Your task to perform on an android device: find which apps use the phone's location Image 0: 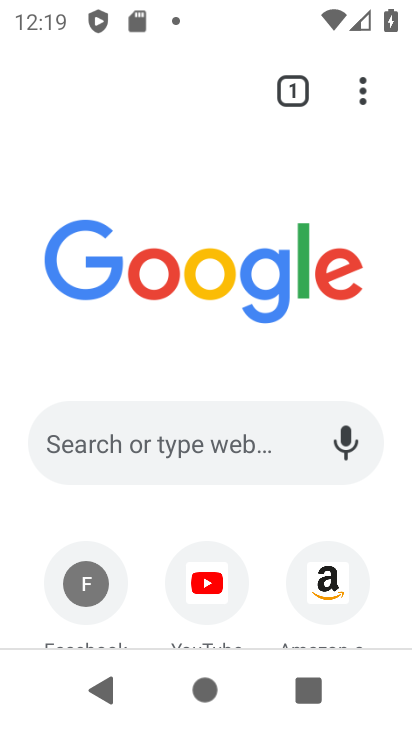
Step 0: press home button
Your task to perform on an android device: find which apps use the phone's location Image 1: 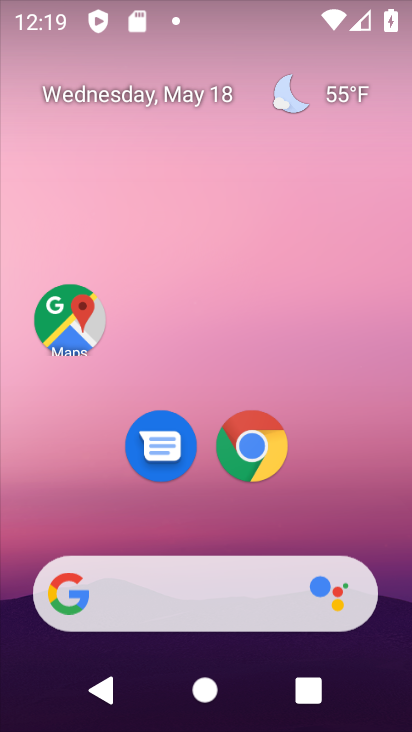
Step 1: drag from (206, 529) to (224, 80)
Your task to perform on an android device: find which apps use the phone's location Image 2: 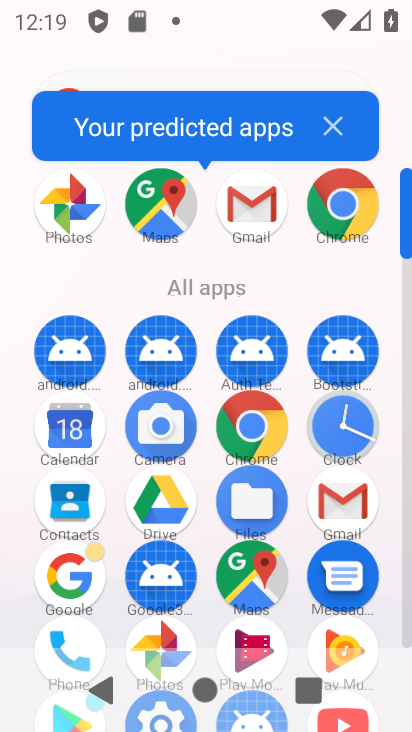
Step 2: drag from (244, 588) to (308, 197)
Your task to perform on an android device: find which apps use the phone's location Image 3: 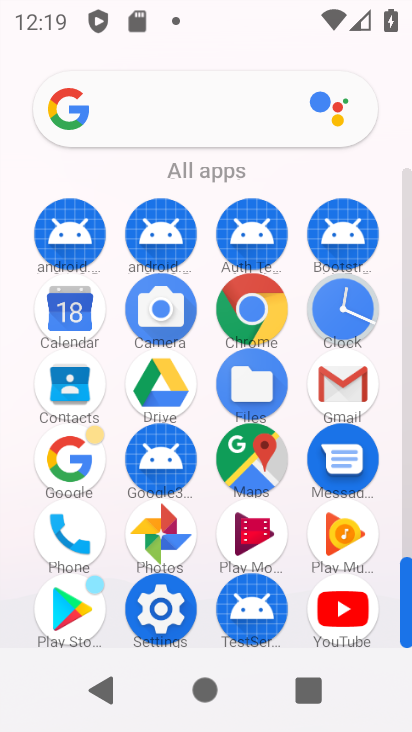
Step 3: click (158, 616)
Your task to perform on an android device: find which apps use the phone's location Image 4: 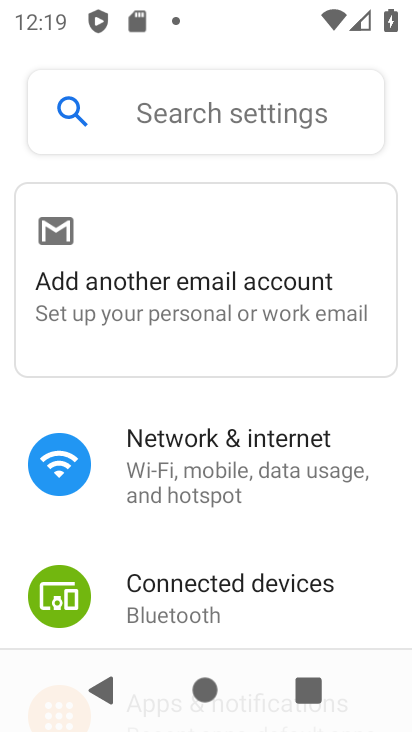
Step 4: drag from (243, 569) to (301, 148)
Your task to perform on an android device: find which apps use the phone's location Image 5: 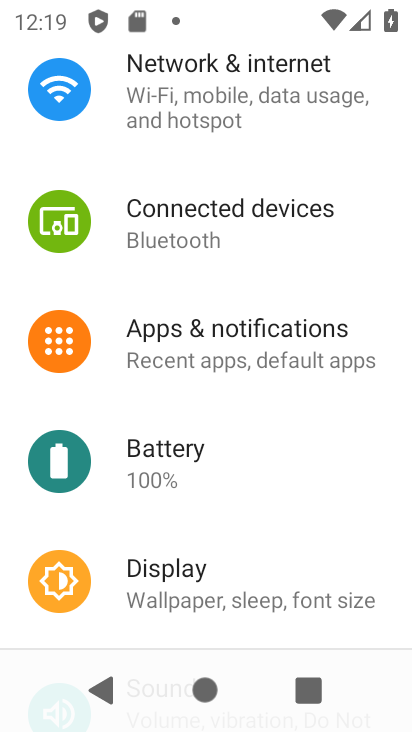
Step 5: drag from (257, 475) to (295, 169)
Your task to perform on an android device: find which apps use the phone's location Image 6: 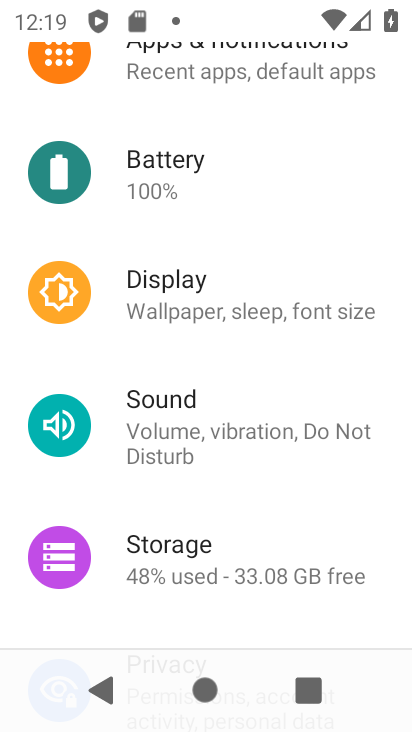
Step 6: drag from (249, 509) to (278, 268)
Your task to perform on an android device: find which apps use the phone's location Image 7: 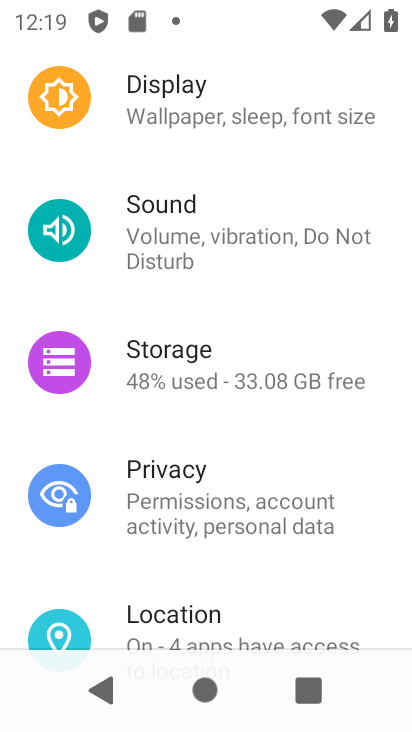
Step 7: drag from (224, 528) to (251, 320)
Your task to perform on an android device: find which apps use the phone's location Image 8: 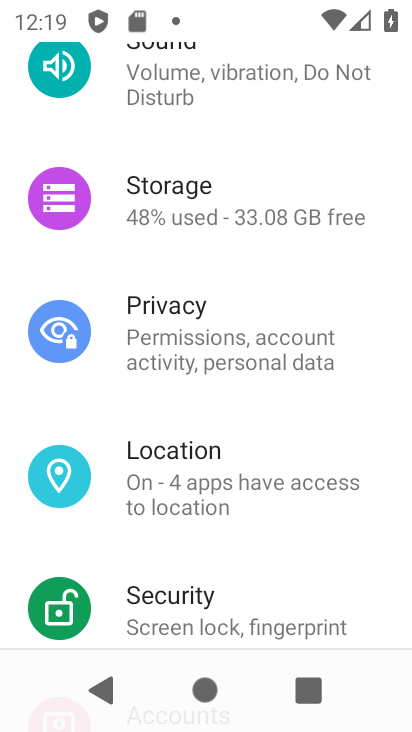
Step 8: click (175, 481)
Your task to perform on an android device: find which apps use the phone's location Image 9: 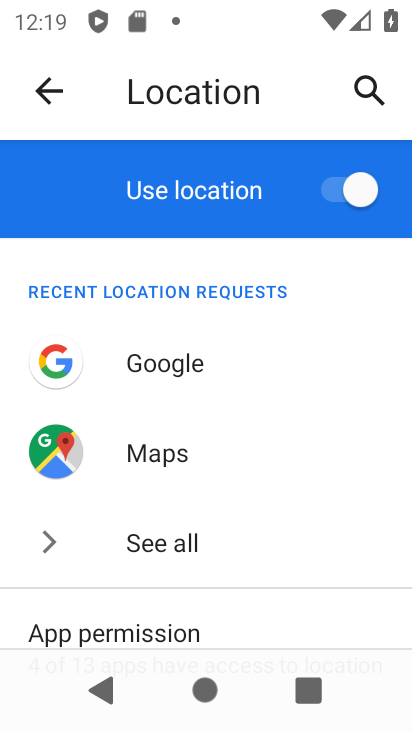
Step 9: drag from (176, 527) to (266, 243)
Your task to perform on an android device: find which apps use the phone's location Image 10: 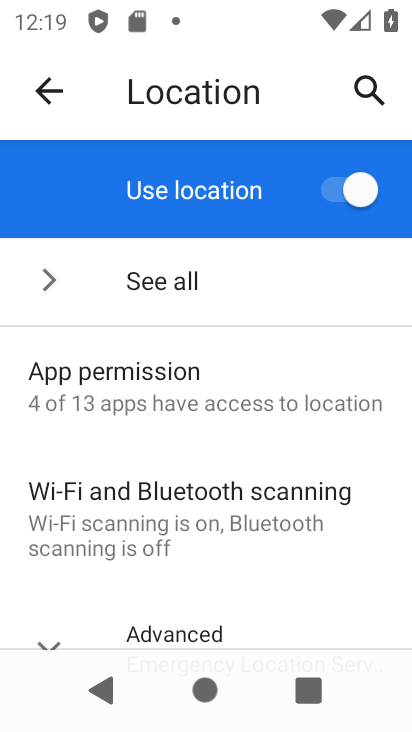
Step 10: click (169, 387)
Your task to perform on an android device: find which apps use the phone's location Image 11: 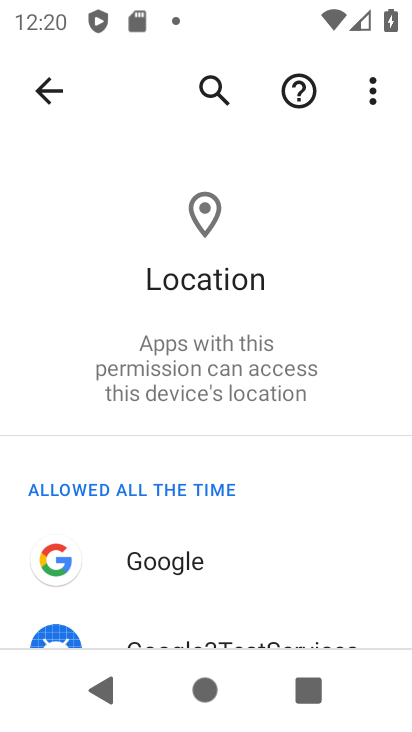
Step 11: task complete